Your task to perform on an android device: open app "Google Maps" Image 0: 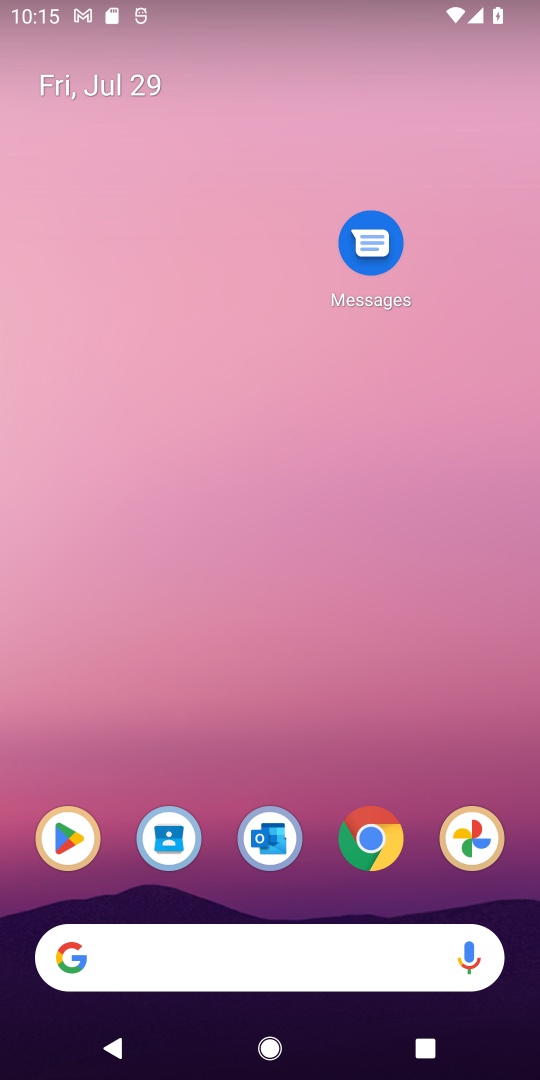
Step 0: click (85, 834)
Your task to perform on an android device: open app "Google Maps" Image 1: 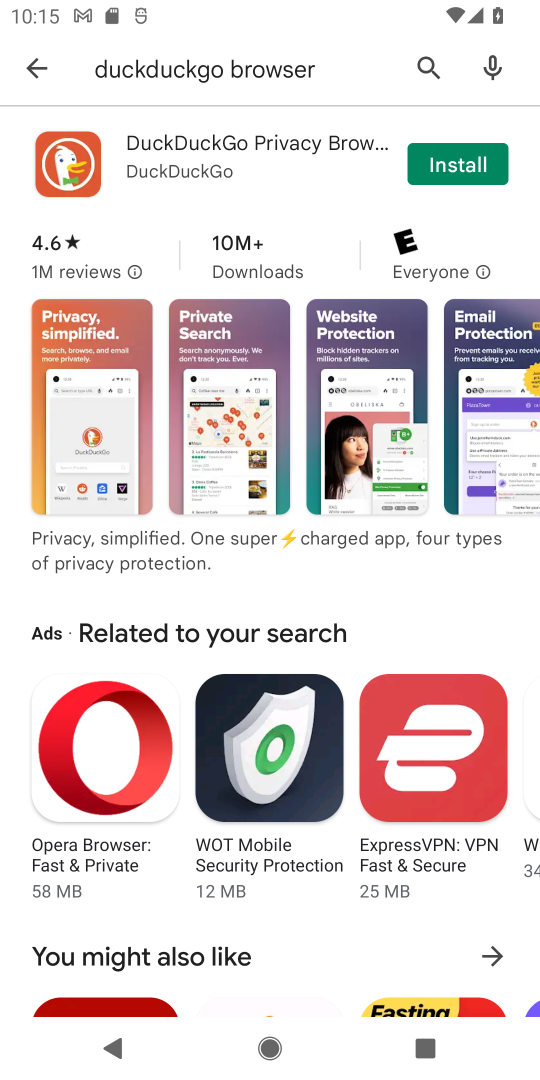
Step 1: click (206, 75)
Your task to perform on an android device: open app "Google Maps" Image 2: 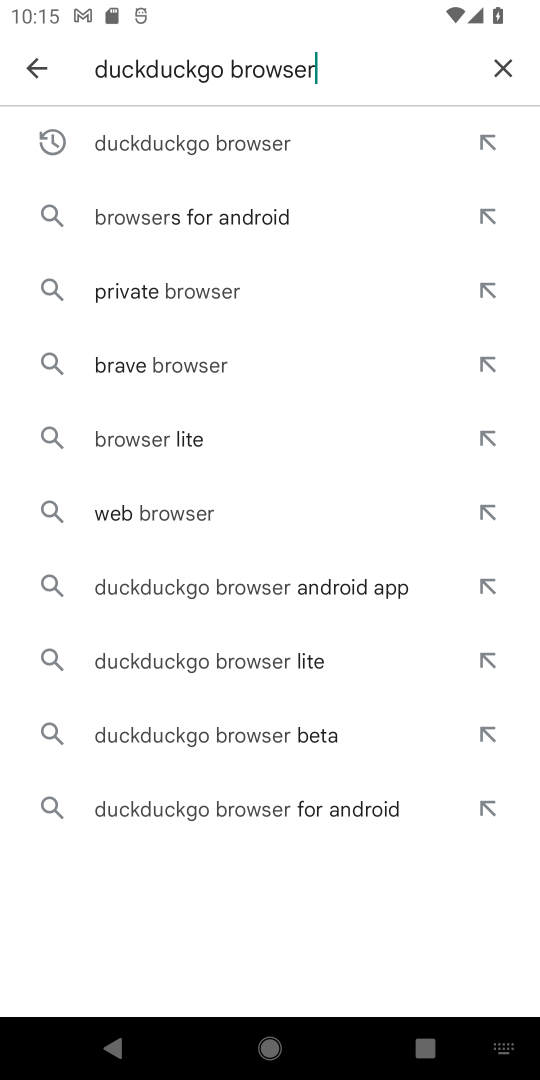
Step 2: click (513, 59)
Your task to perform on an android device: open app "Google Maps" Image 3: 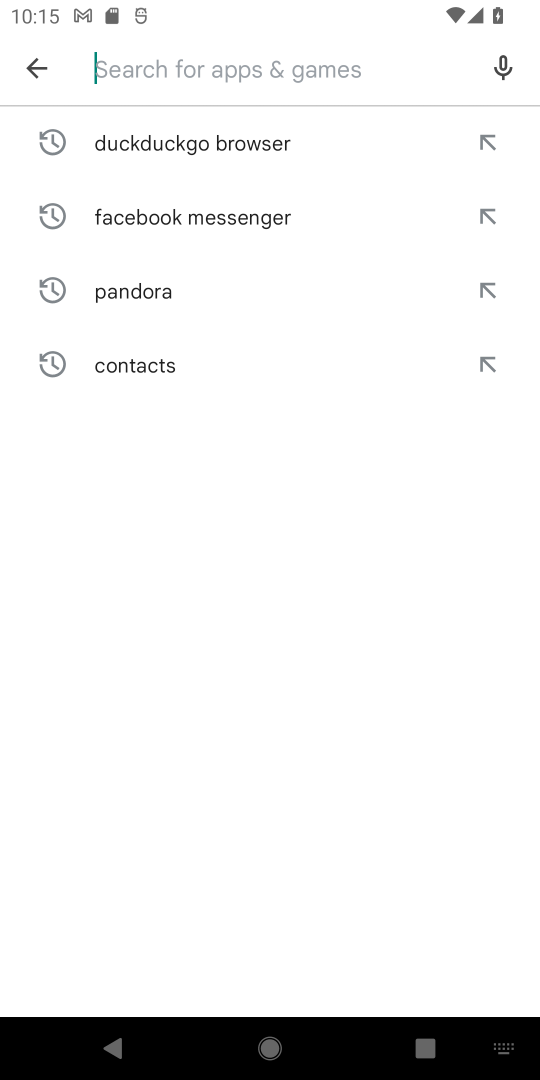
Step 3: type "maps"
Your task to perform on an android device: open app "Google Maps" Image 4: 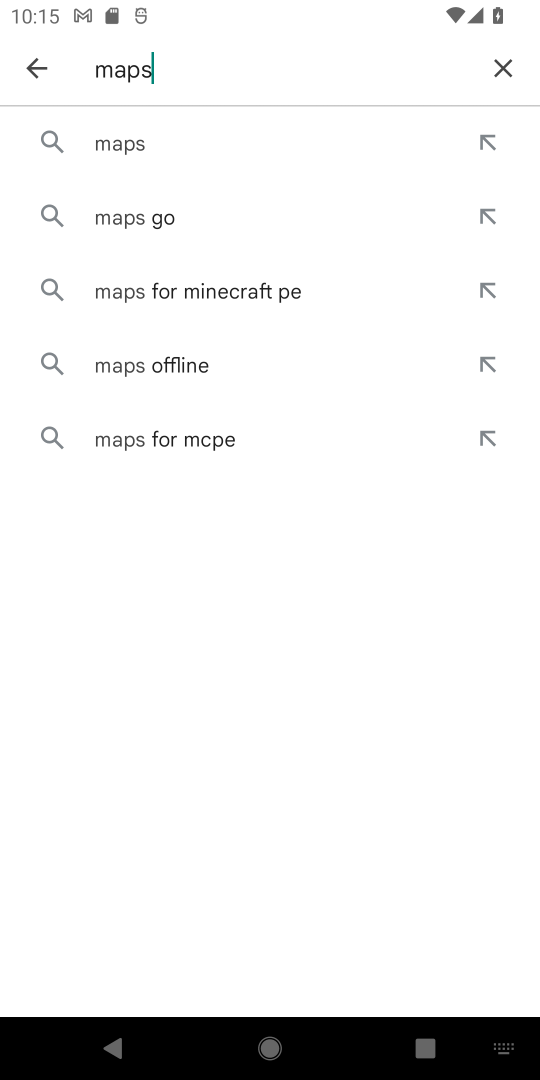
Step 4: click (132, 138)
Your task to perform on an android device: open app "Google Maps" Image 5: 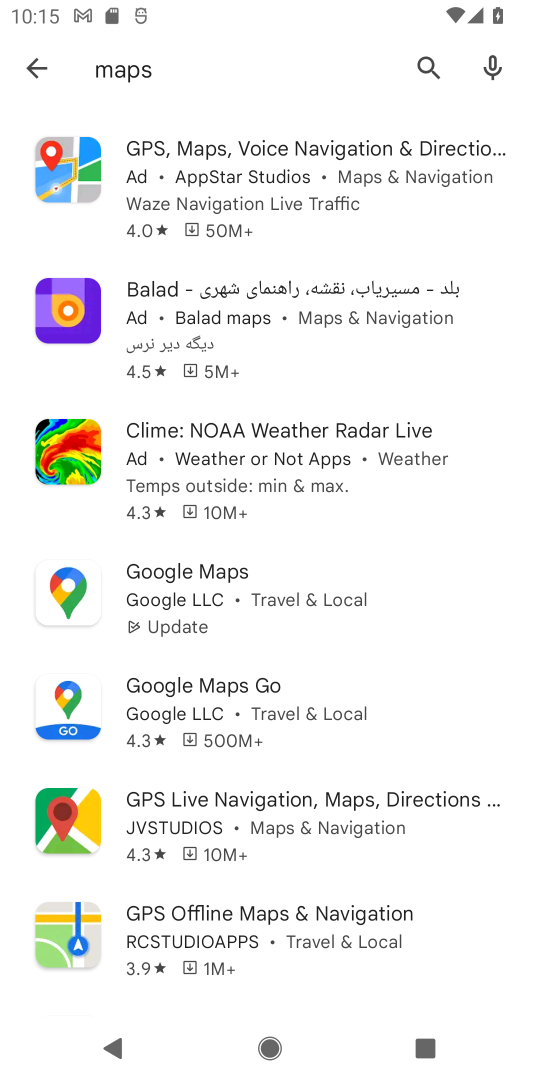
Step 5: drag from (249, 383) to (271, 650)
Your task to perform on an android device: open app "Google Maps" Image 6: 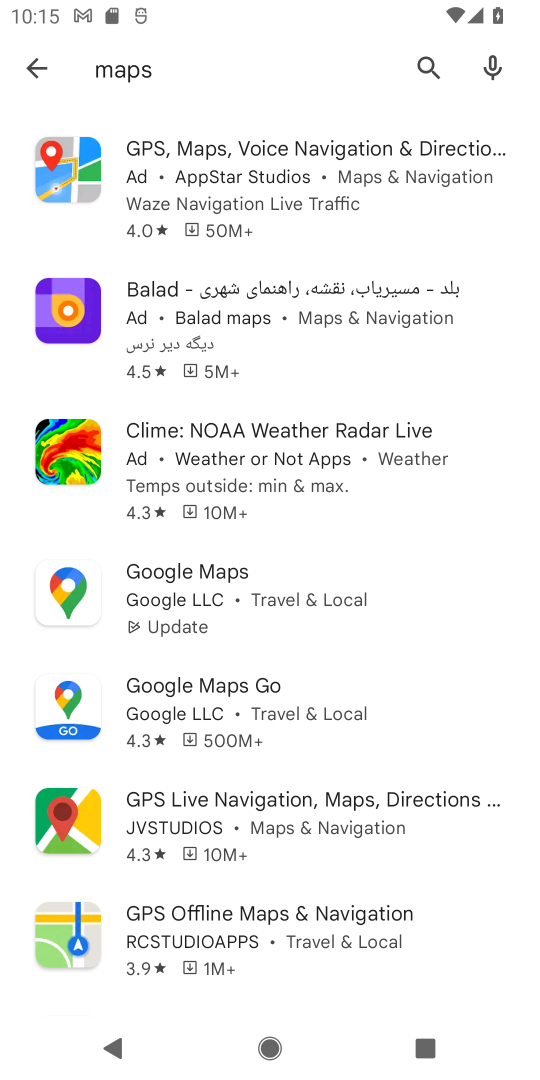
Step 6: click (188, 609)
Your task to perform on an android device: open app "Google Maps" Image 7: 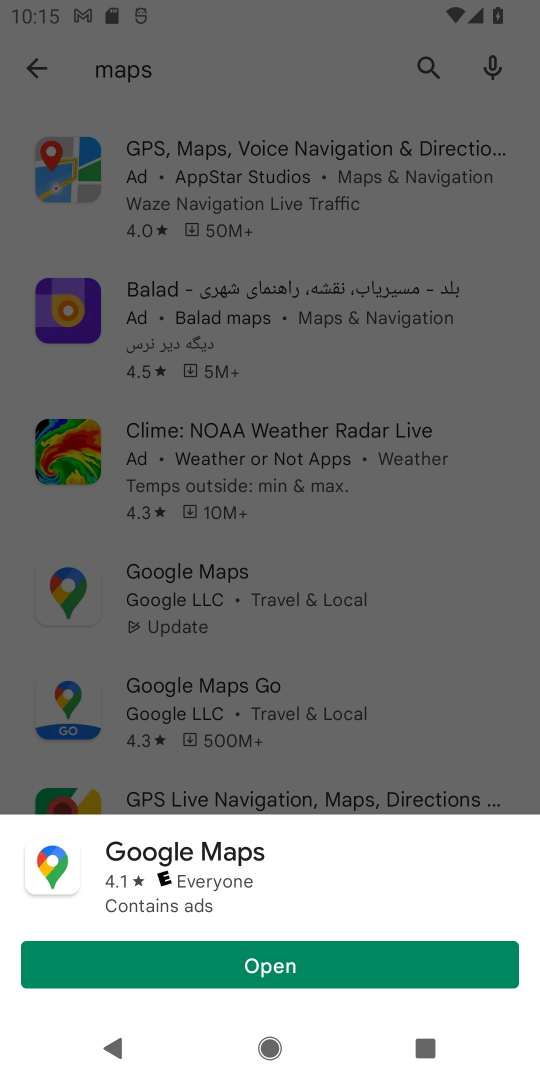
Step 7: click (193, 960)
Your task to perform on an android device: open app "Google Maps" Image 8: 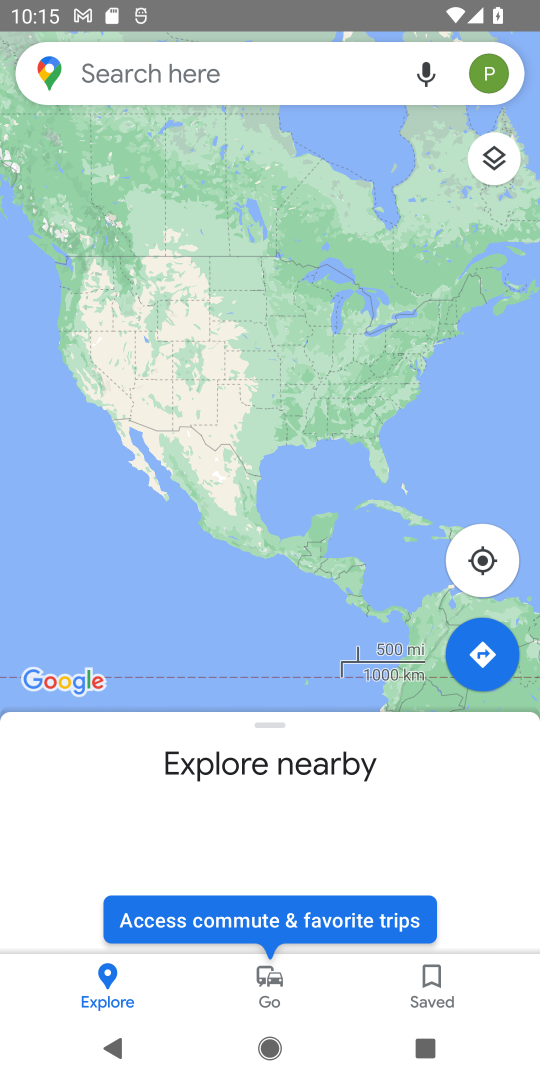
Step 8: task complete